Your task to perform on an android device: toggle location history Image 0: 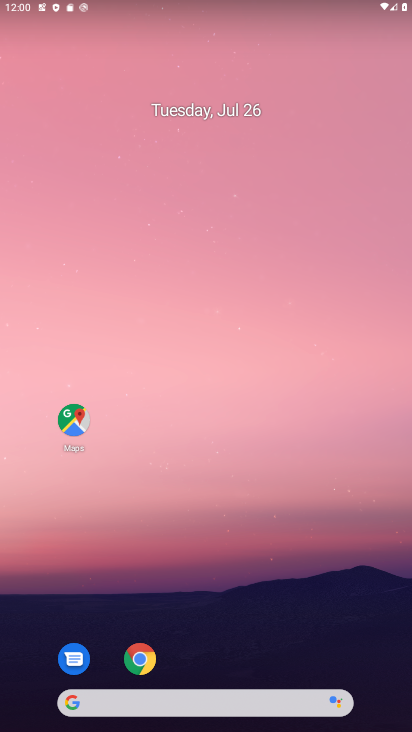
Step 0: press home button
Your task to perform on an android device: toggle location history Image 1: 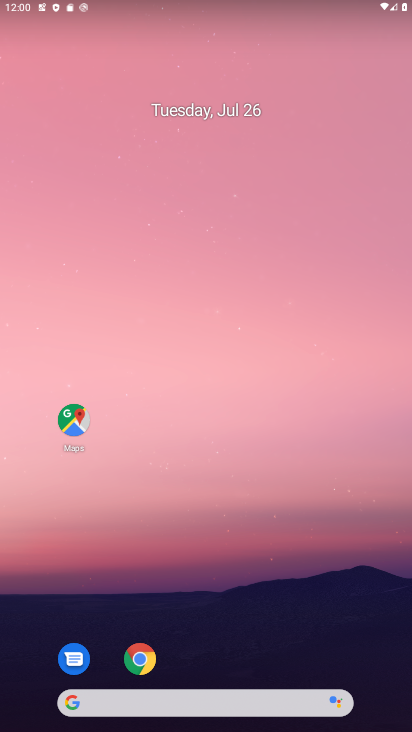
Step 1: drag from (204, 684) to (228, 211)
Your task to perform on an android device: toggle location history Image 2: 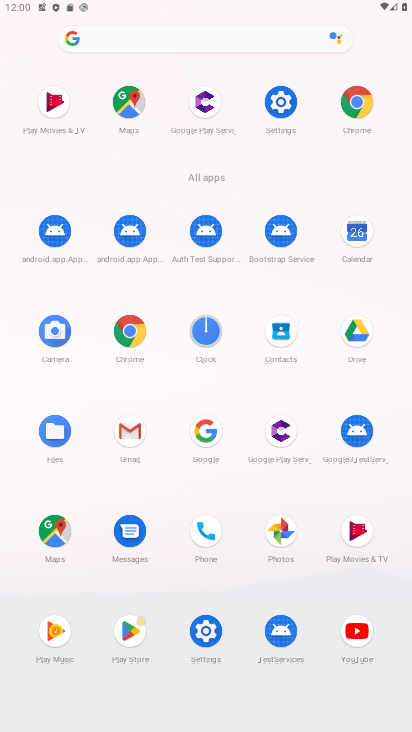
Step 2: click (208, 621)
Your task to perform on an android device: toggle location history Image 3: 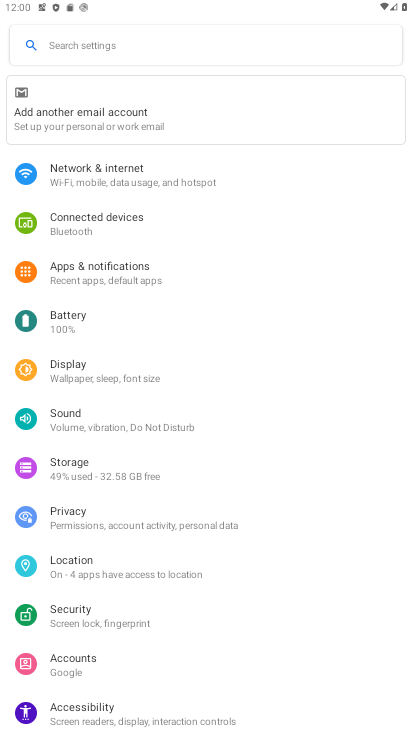
Step 3: click (59, 552)
Your task to perform on an android device: toggle location history Image 4: 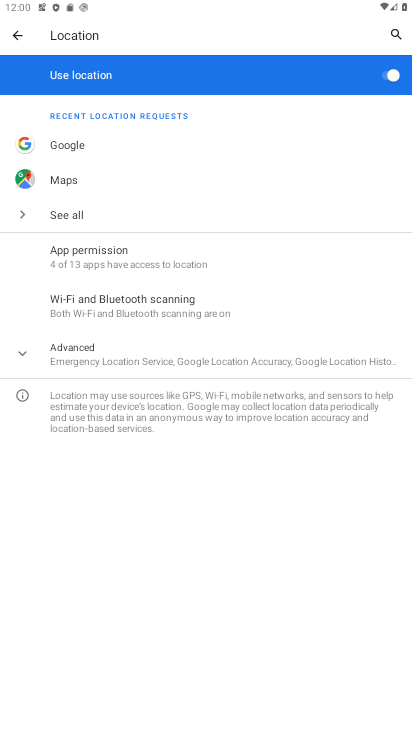
Step 4: click (191, 356)
Your task to perform on an android device: toggle location history Image 5: 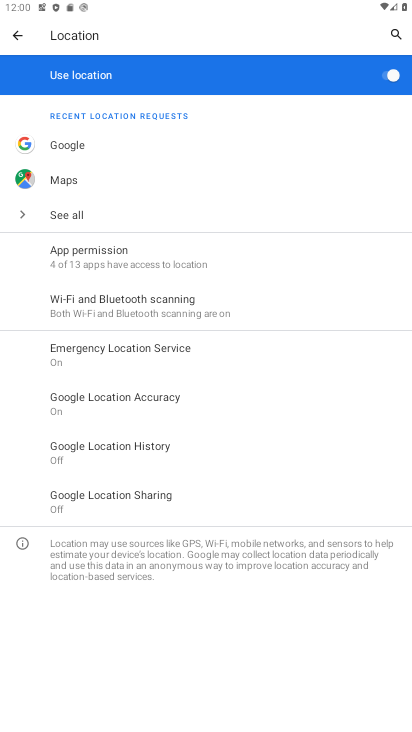
Step 5: drag from (217, 577) to (281, 167)
Your task to perform on an android device: toggle location history Image 6: 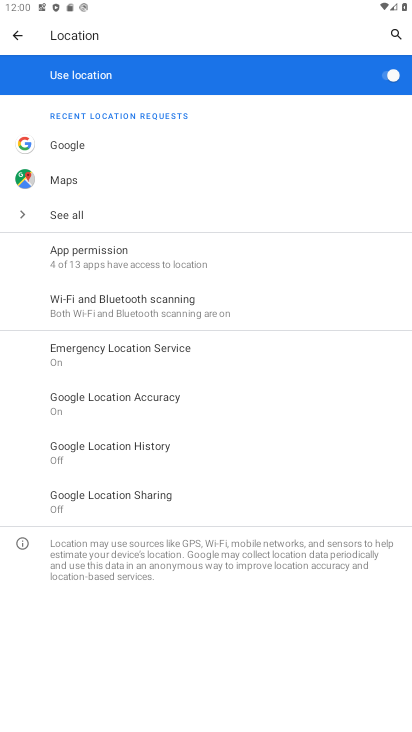
Step 6: drag from (196, 568) to (304, 272)
Your task to perform on an android device: toggle location history Image 7: 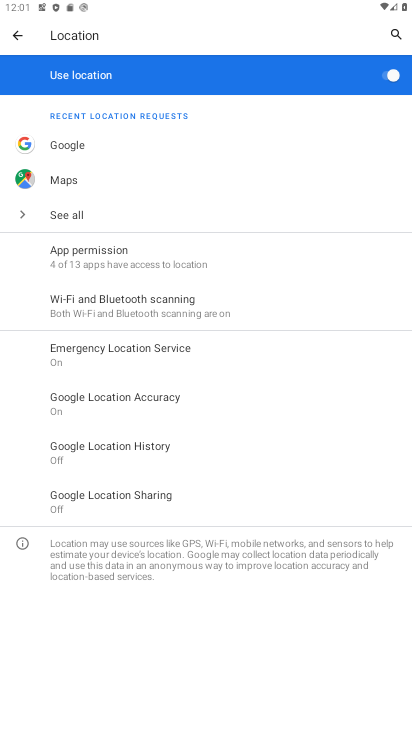
Step 7: click (168, 462)
Your task to perform on an android device: toggle location history Image 8: 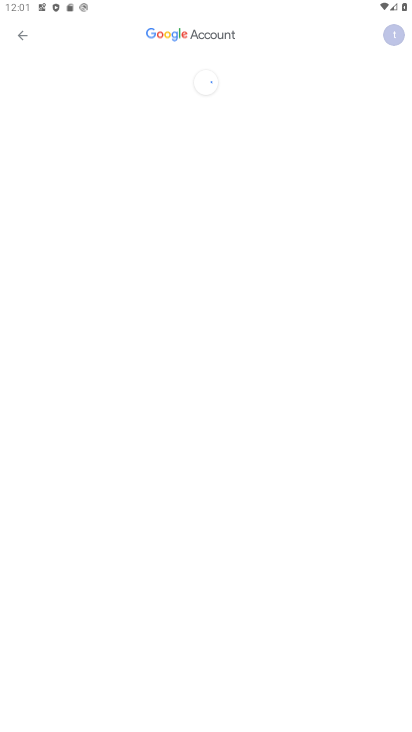
Step 8: task complete